Your task to perform on an android device: Go to Maps Image 0: 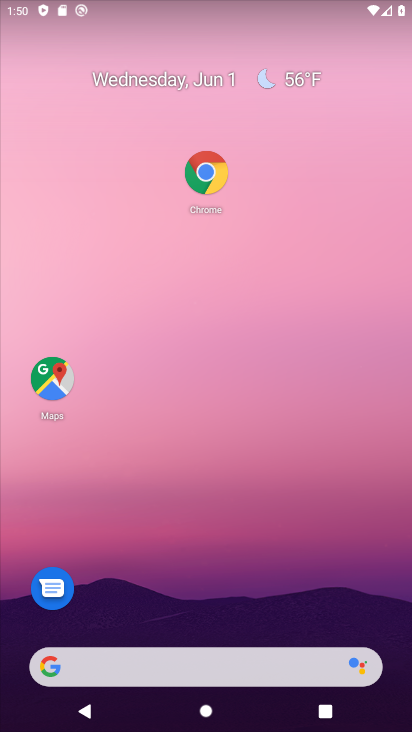
Step 0: click (50, 391)
Your task to perform on an android device: Go to Maps Image 1: 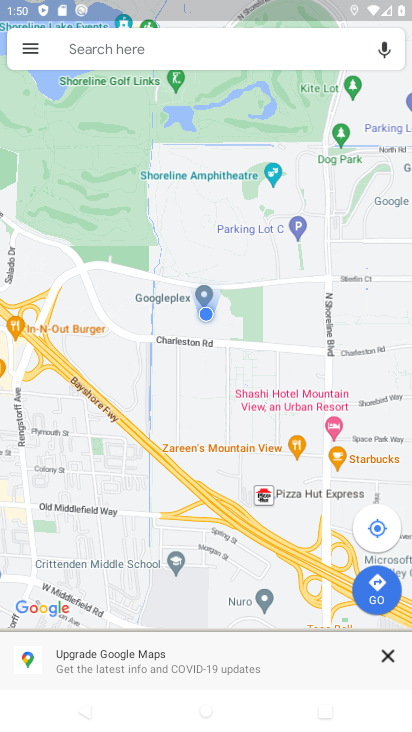
Step 1: task complete